Your task to perform on an android device: Go to notification settings Image 0: 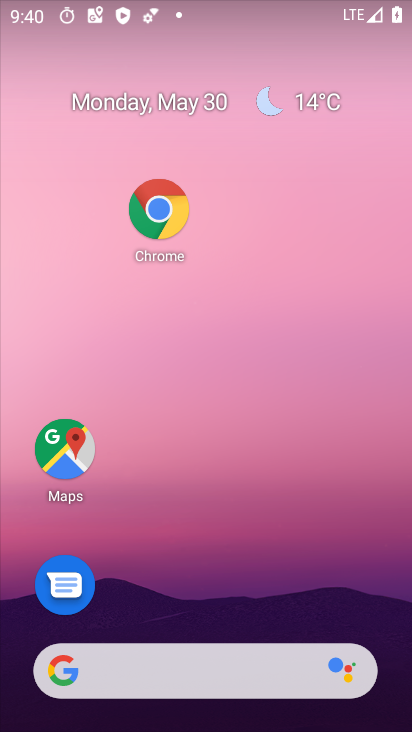
Step 0: drag from (192, 620) to (341, 4)
Your task to perform on an android device: Go to notification settings Image 1: 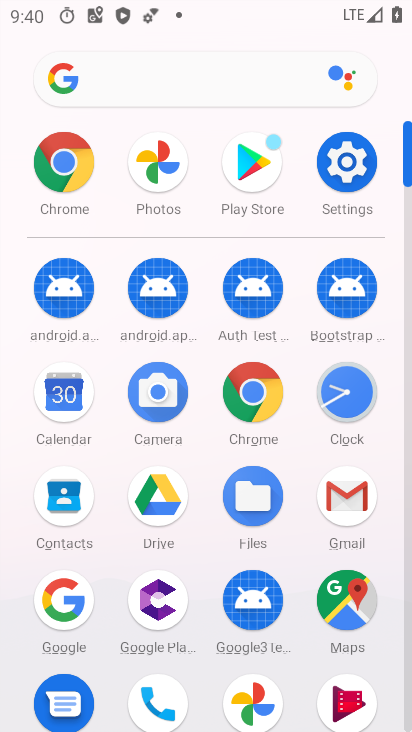
Step 1: click (343, 159)
Your task to perform on an android device: Go to notification settings Image 2: 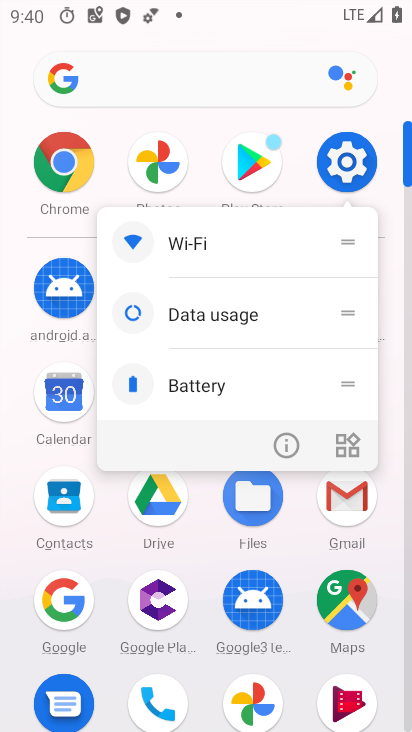
Step 2: click (287, 432)
Your task to perform on an android device: Go to notification settings Image 3: 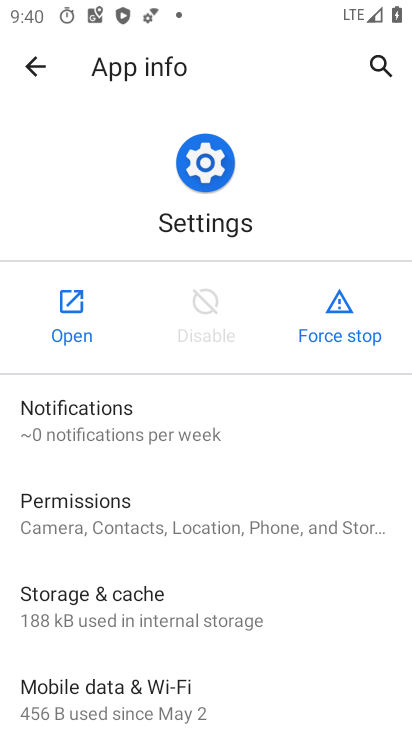
Step 3: click (82, 312)
Your task to perform on an android device: Go to notification settings Image 4: 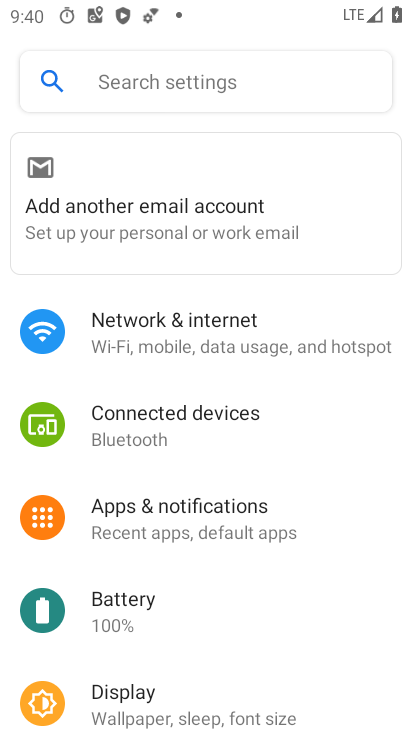
Step 4: click (75, 293)
Your task to perform on an android device: Go to notification settings Image 5: 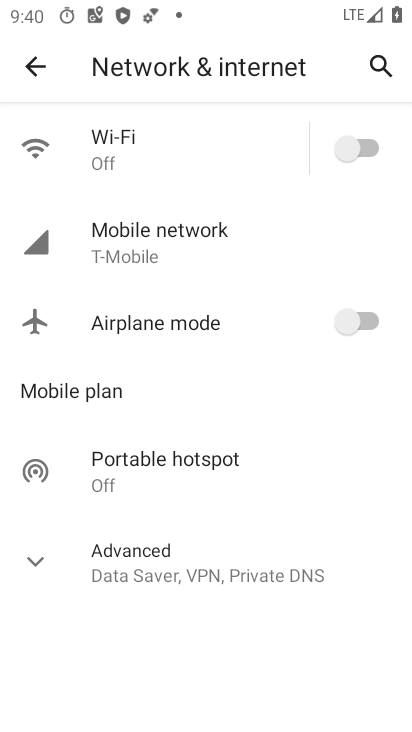
Step 5: click (48, 68)
Your task to perform on an android device: Go to notification settings Image 6: 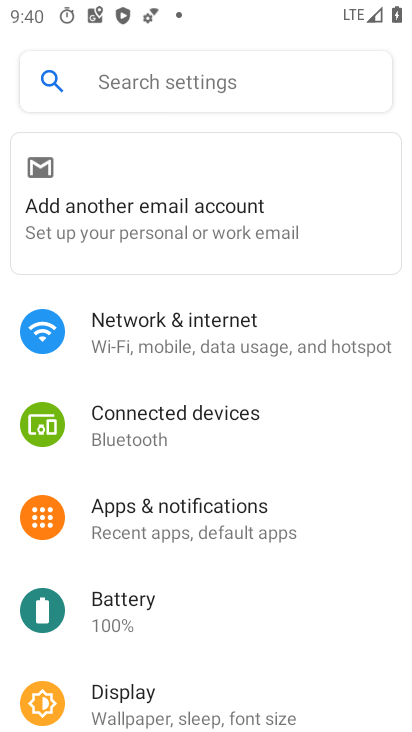
Step 6: drag from (262, 525) to (313, 209)
Your task to perform on an android device: Go to notification settings Image 7: 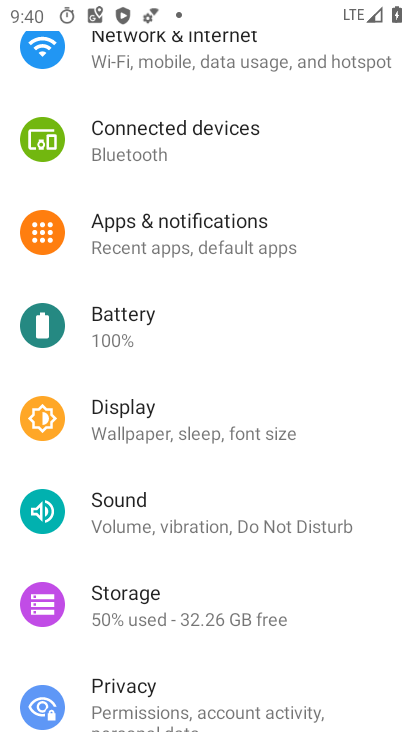
Step 7: click (191, 233)
Your task to perform on an android device: Go to notification settings Image 8: 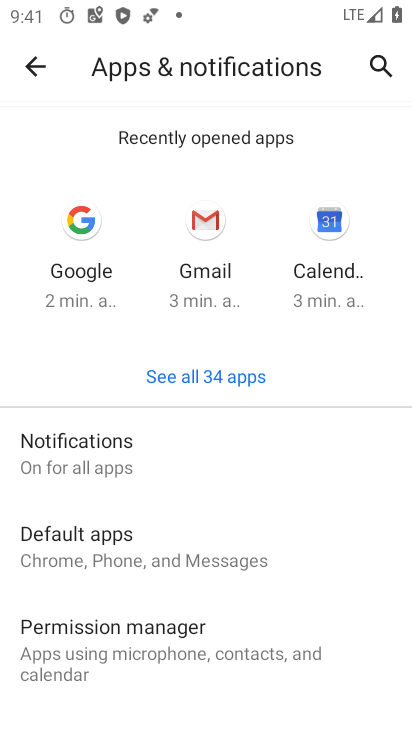
Step 8: click (149, 447)
Your task to perform on an android device: Go to notification settings Image 9: 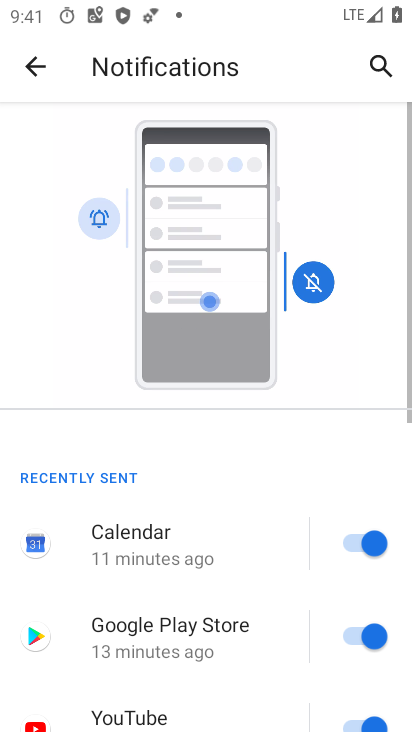
Step 9: drag from (255, 642) to (338, 6)
Your task to perform on an android device: Go to notification settings Image 10: 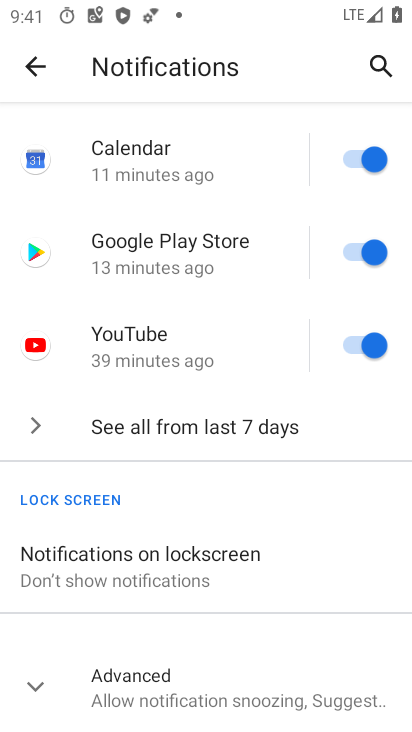
Step 10: click (202, 680)
Your task to perform on an android device: Go to notification settings Image 11: 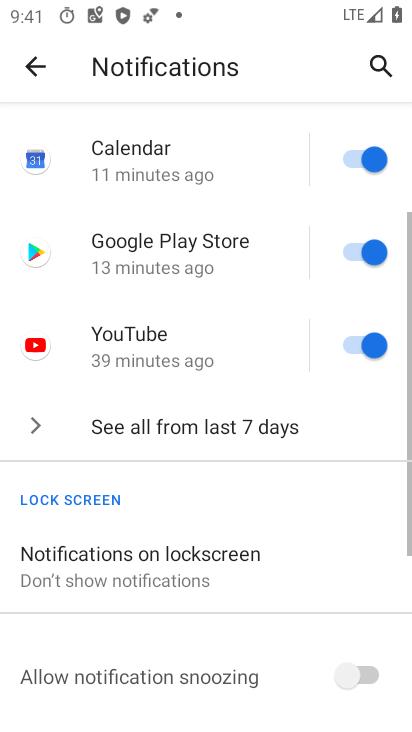
Step 11: drag from (208, 653) to (404, 33)
Your task to perform on an android device: Go to notification settings Image 12: 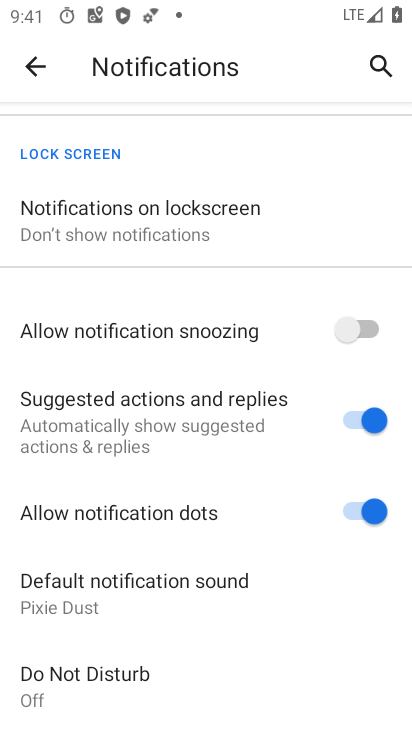
Step 12: click (358, 327)
Your task to perform on an android device: Go to notification settings Image 13: 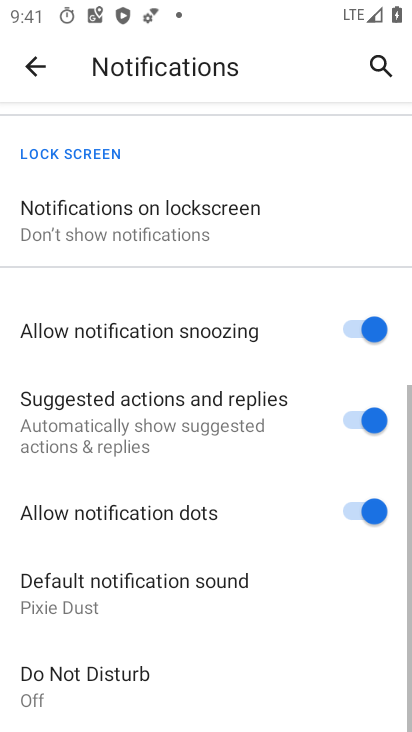
Step 13: task complete